Your task to perform on an android device: Open Amazon Image 0: 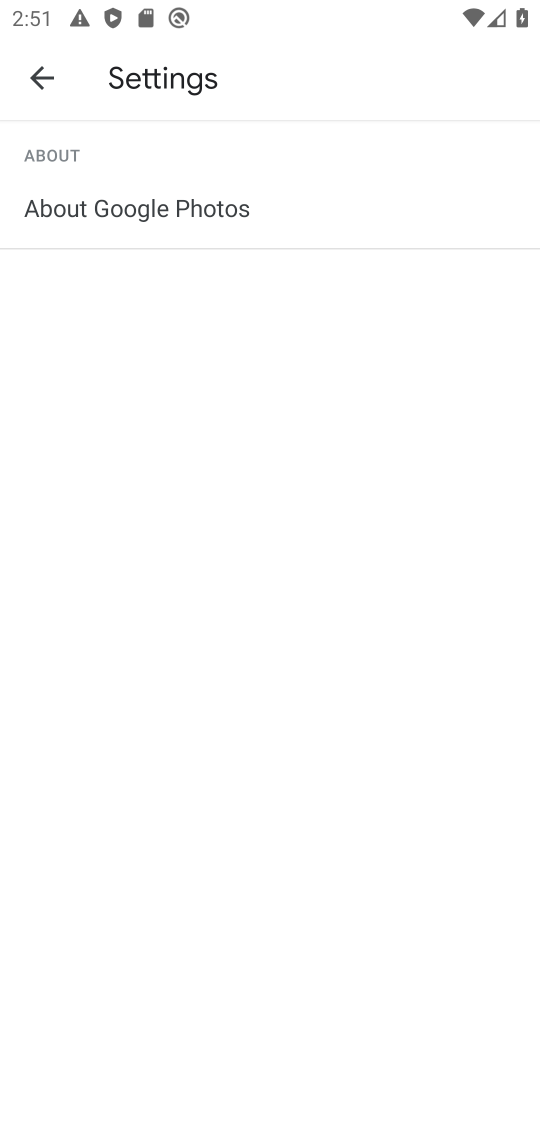
Step 0: press home button
Your task to perform on an android device: Open Amazon Image 1: 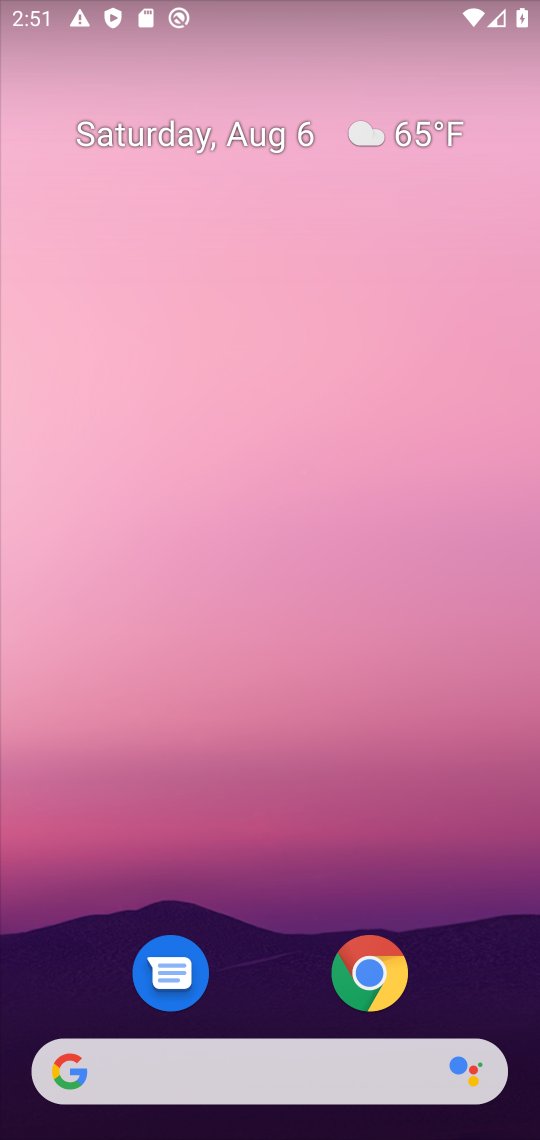
Step 1: click (372, 983)
Your task to perform on an android device: Open Amazon Image 2: 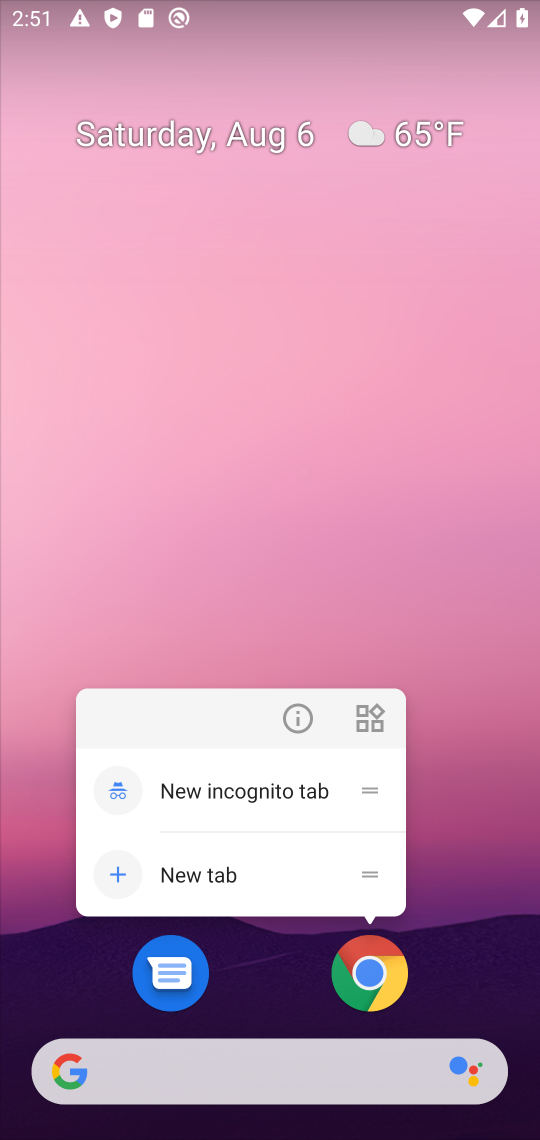
Step 2: click (371, 966)
Your task to perform on an android device: Open Amazon Image 3: 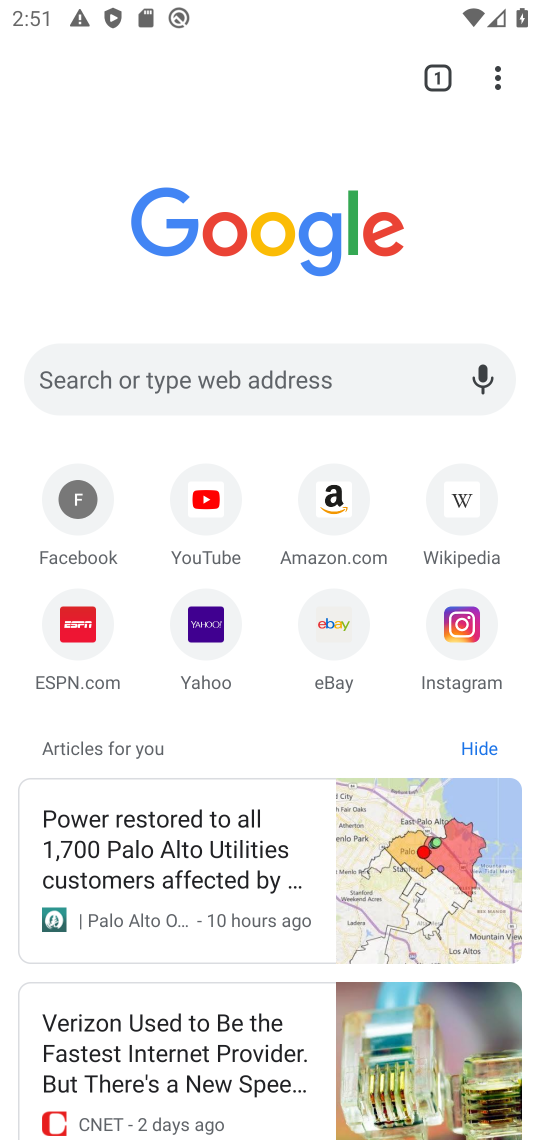
Step 3: click (328, 494)
Your task to perform on an android device: Open Amazon Image 4: 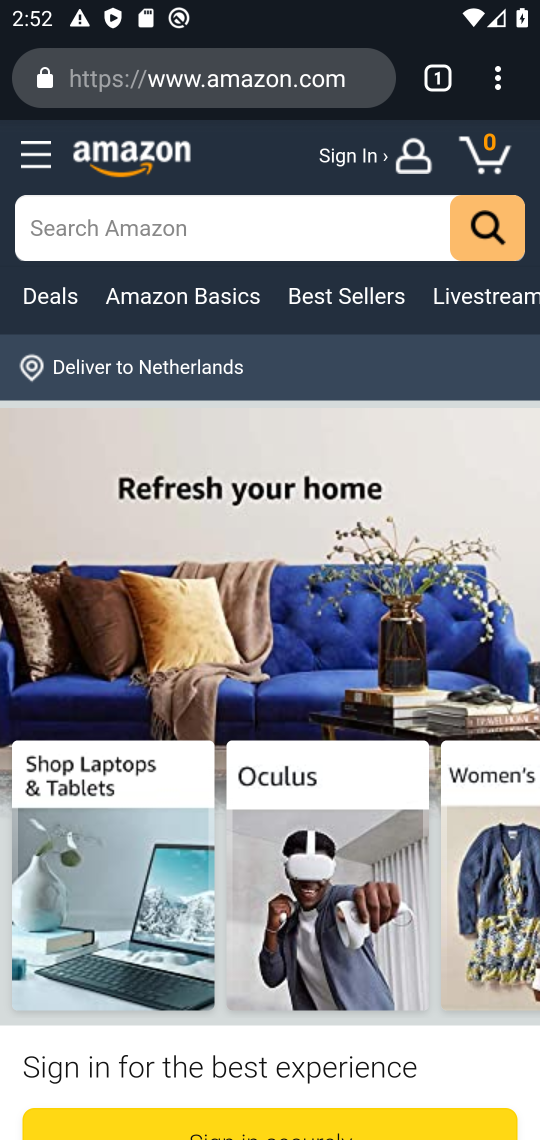
Step 4: task complete